Your task to perform on an android device: add a contact in the contacts app Image 0: 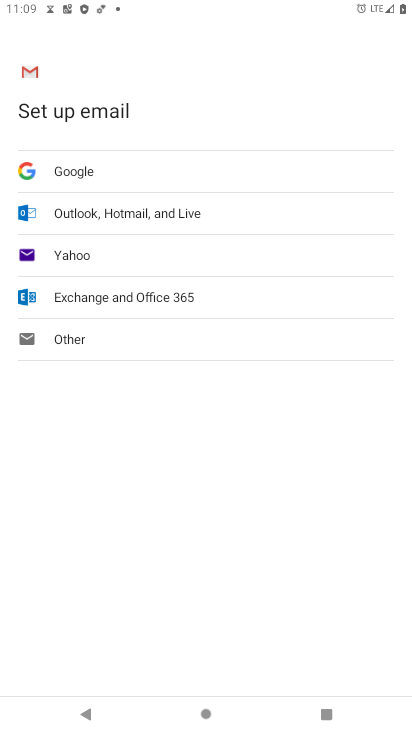
Step 0: press home button
Your task to perform on an android device: add a contact in the contacts app Image 1: 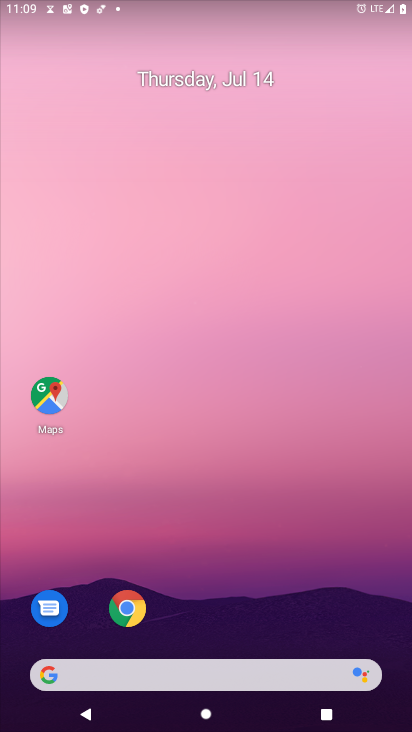
Step 1: drag from (238, 722) to (248, 105)
Your task to perform on an android device: add a contact in the contacts app Image 2: 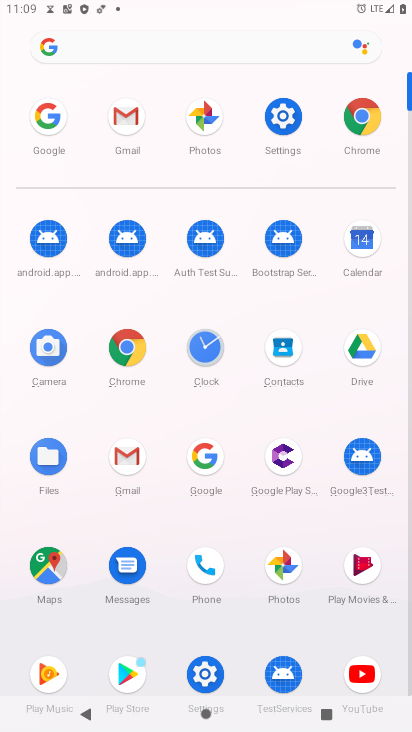
Step 2: click (287, 349)
Your task to perform on an android device: add a contact in the contacts app Image 3: 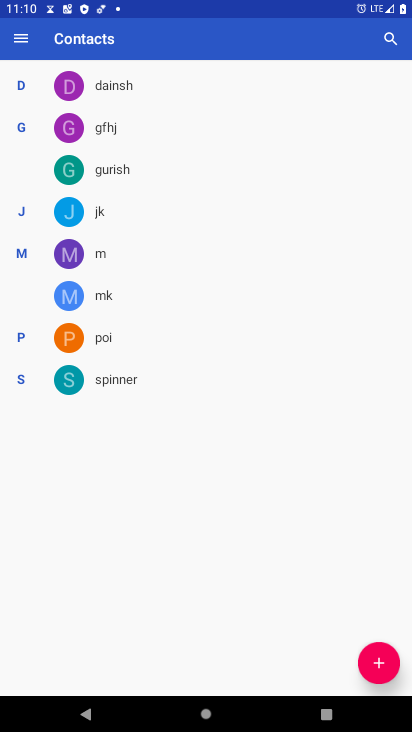
Step 3: click (382, 664)
Your task to perform on an android device: add a contact in the contacts app Image 4: 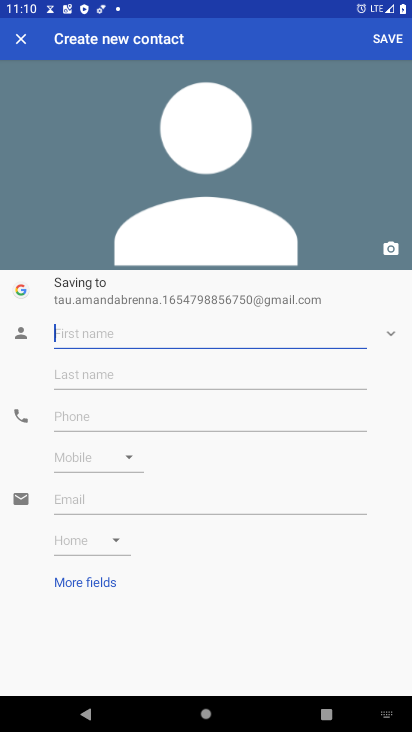
Step 4: type "notrt"
Your task to perform on an android device: add a contact in the contacts app Image 5: 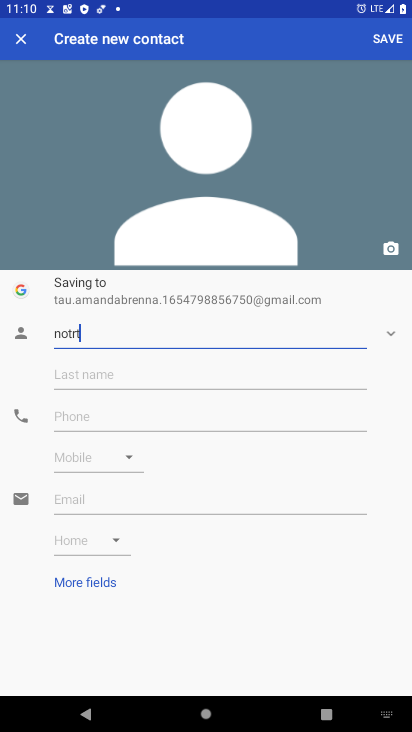
Step 5: click (104, 418)
Your task to perform on an android device: add a contact in the contacts app Image 6: 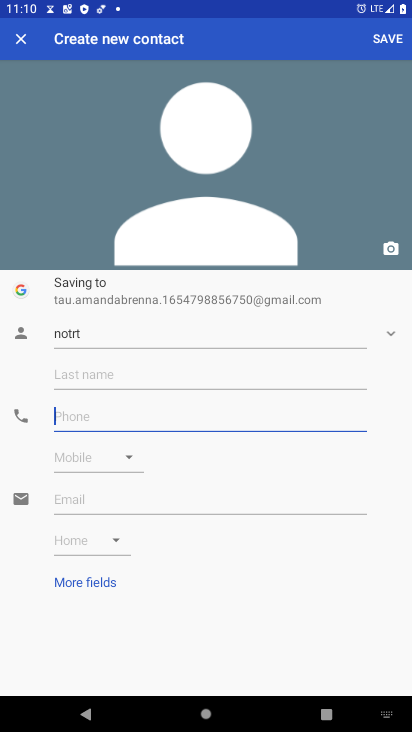
Step 6: type "090987"
Your task to perform on an android device: add a contact in the contacts app Image 7: 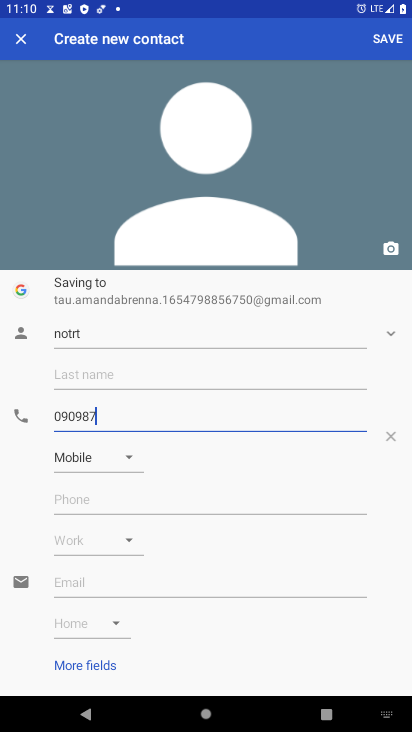
Step 7: click (382, 33)
Your task to perform on an android device: add a contact in the contacts app Image 8: 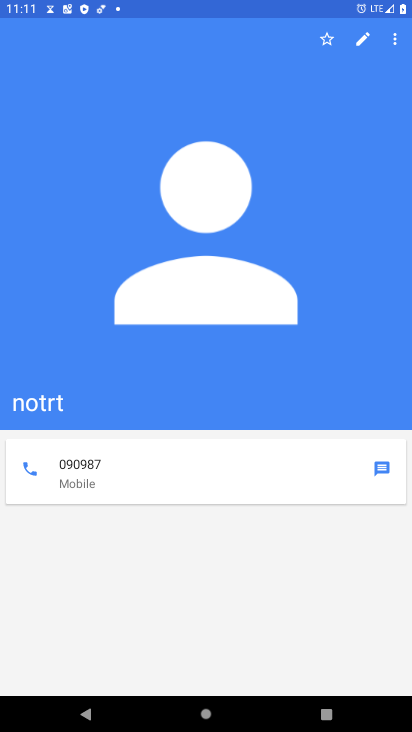
Step 8: task complete